Your task to perform on an android device: Open settings on Google Maps Image 0: 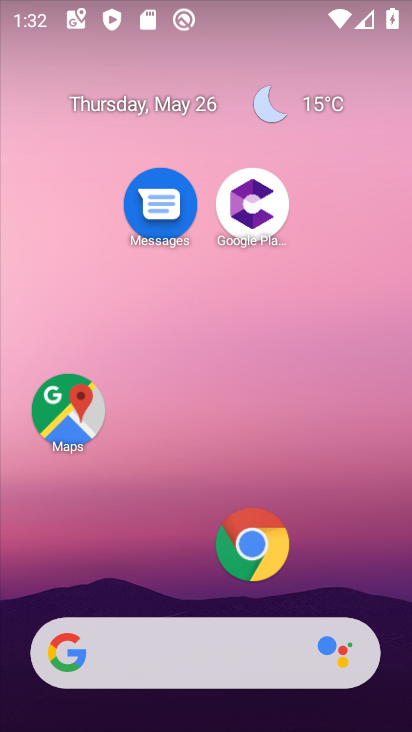
Step 0: click (73, 390)
Your task to perform on an android device: Open settings on Google Maps Image 1: 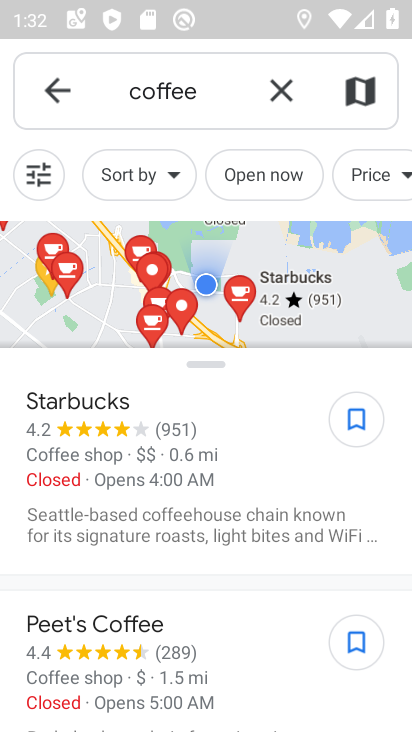
Step 1: task complete